Your task to perform on an android device: Open ESPN.com Image 0: 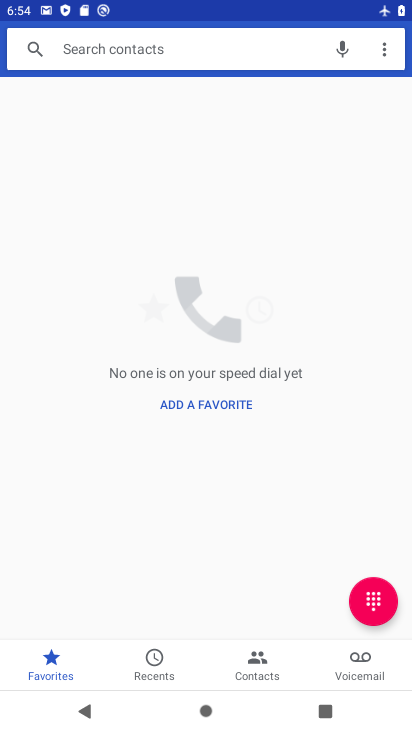
Step 0: press home button
Your task to perform on an android device: Open ESPN.com Image 1: 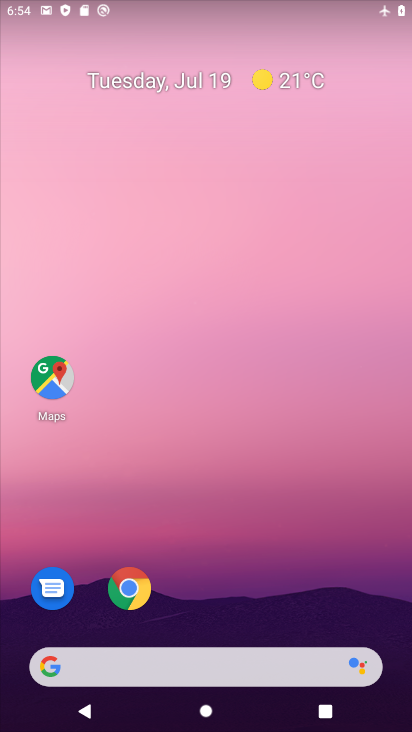
Step 1: click (139, 604)
Your task to perform on an android device: Open ESPN.com Image 2: 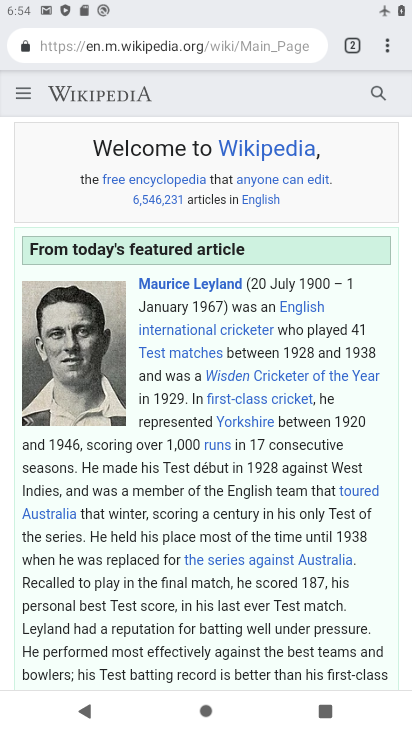
Step 2: click (349, 51)
Your task to perform on an android device: Open ESPN.com Image 3: 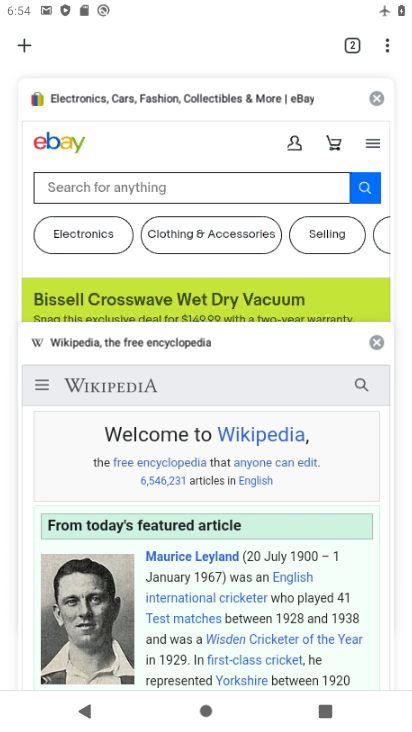
Step 3: click (31, 47)
Your task to perform on an android device: Open ESPN.com Image 4: 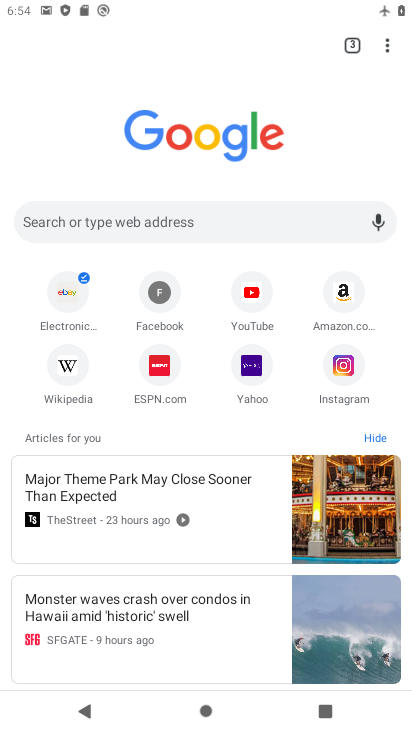
Step 4: click (150, 374)
Your task to perform on an android device: Open ESPN.com Image 5: 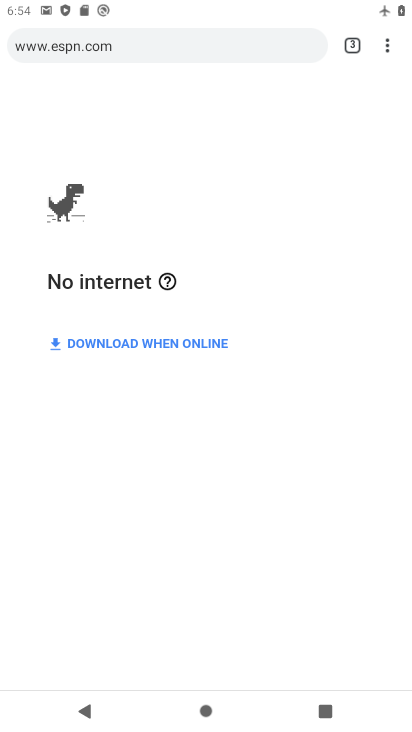
Step 5: task complete